Your task to perform on an android device: toggle translation in the chrome app Image 0: 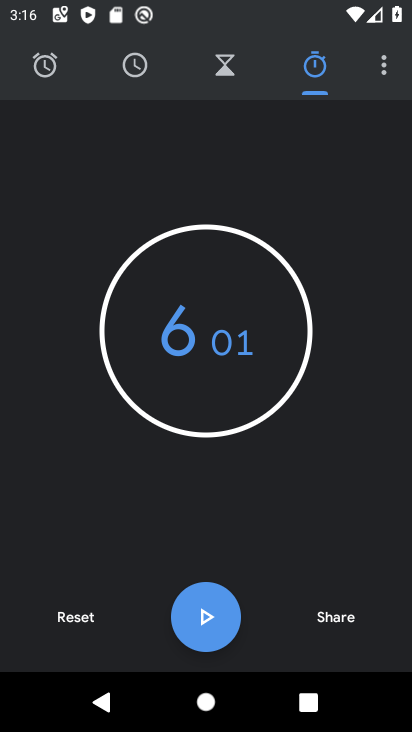
Step 0: press home button
Your task to perform on an android device: toggle translation in the chrome app Image 1: 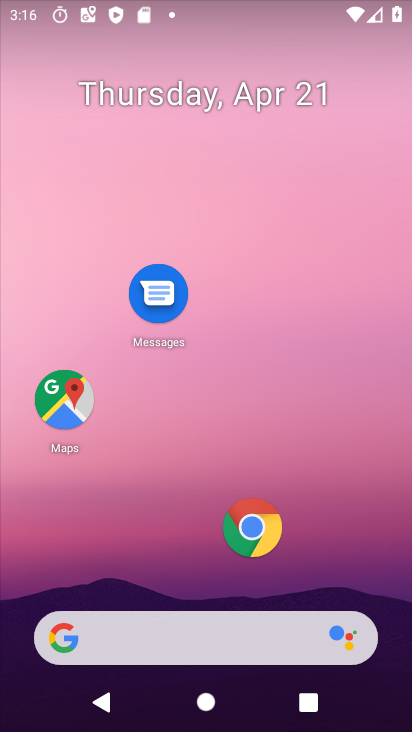
Step 1: press home button
Your task to perform on an android device: toggle translation in the chrome app Image 2: 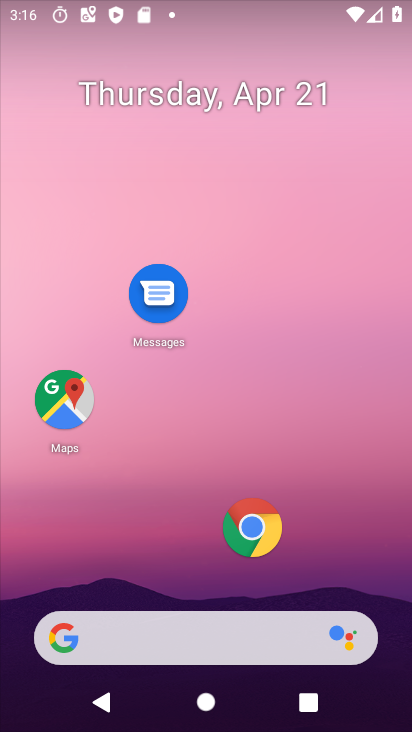
Step 2: click (261, 528)
Your task to perform on an android device: toggle translation in the chrome app Image 3: 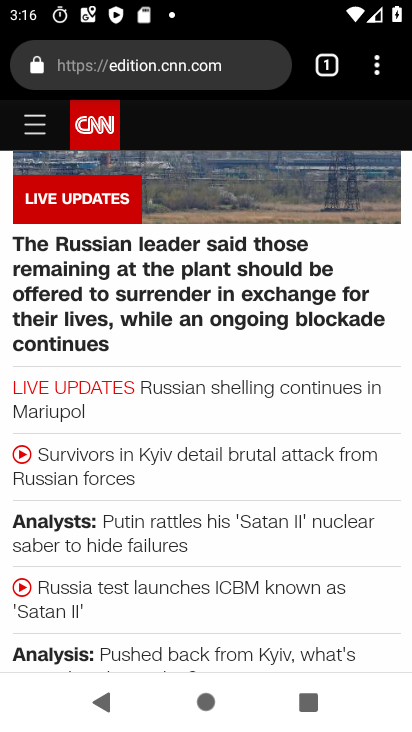
Step 3: click (380, 61)
Your task to perform on an android device: toggle translation in the chrome app Image 4: 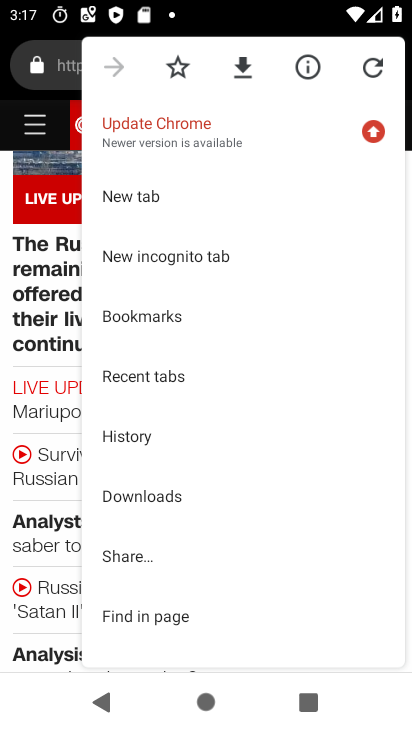
Step 4: drag from (205, 592) to (271, 410)
Your task to perform on an android device: toggle translation in the chrome app Image 5: 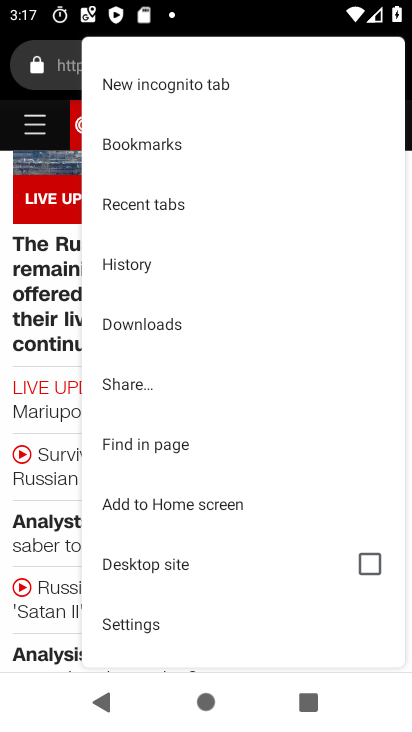
Step 5: click (129, 620)
Your task to perform on an android device: toggle translation in the chrome app Image 6: 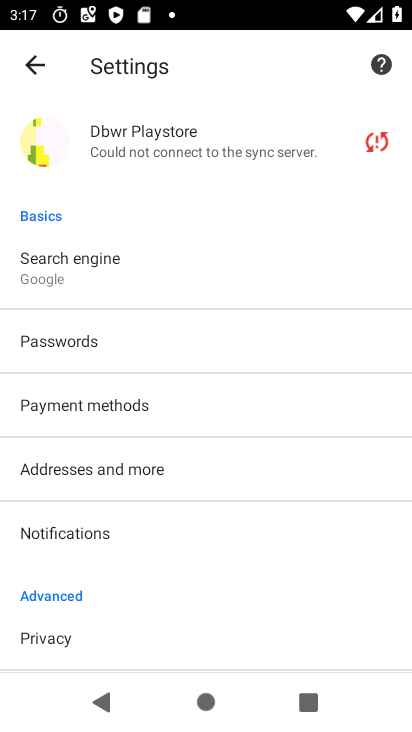
Step 6: drag from (71, 652) to (161, 437)
Your task to perform on an android device: toggle translation in the chrome app Image 7: 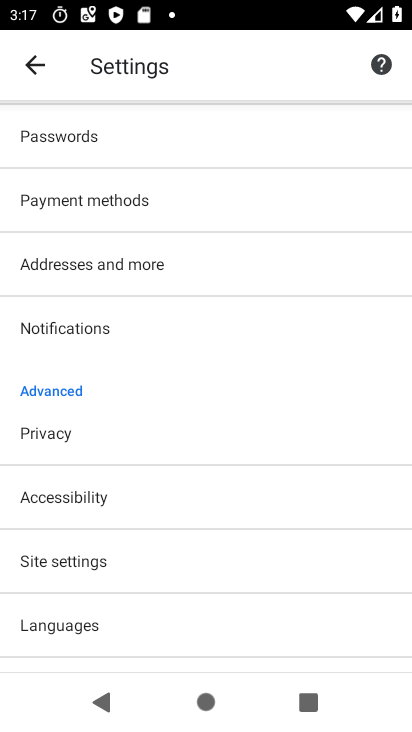
Step 7: click (61, 627)
Your task to perform on an android device: toggle translation in the chrome app Image 8: 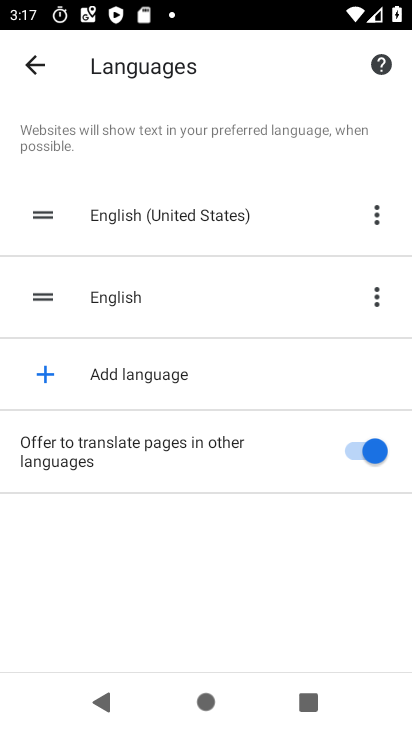
Step 8: click (354, 446)
Your task to perform on an android device: toggle translation in the chrome app Image 9: 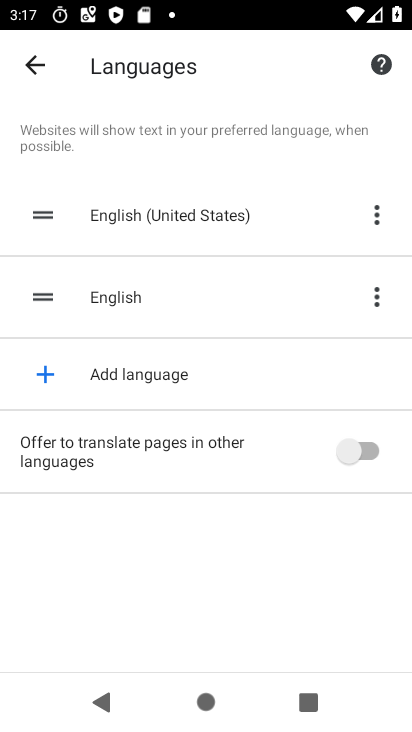
Step 9: task complete